Your task to perform on an android device: Open Google Chrome Image 0: 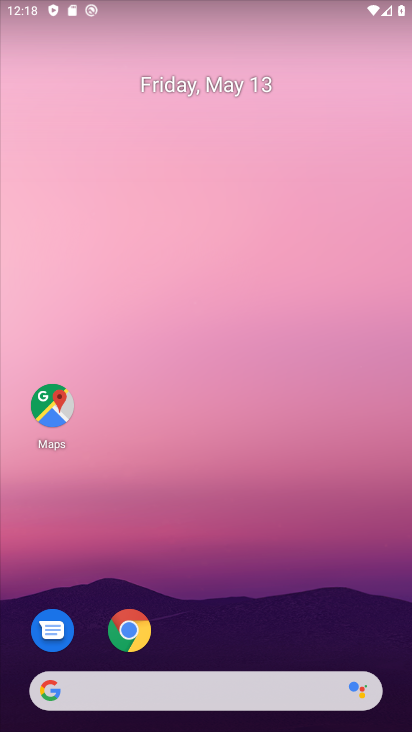
Step 0: click (138, 624)
Your task to perform on an android device: Open Google Chrome Image 1: 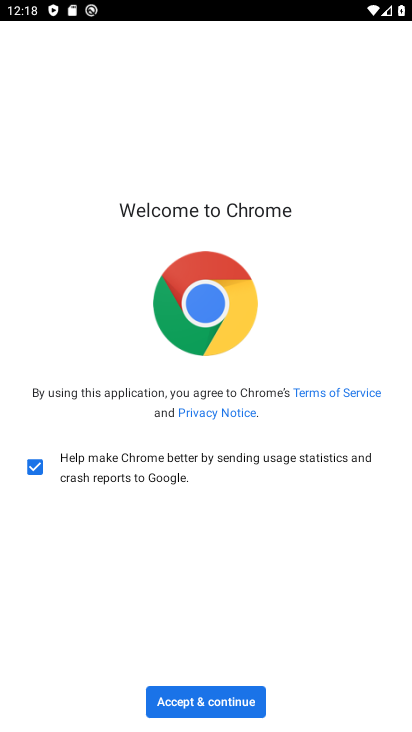
Step 1: click (194, 710)
Your task to perform on an android device: Open Google Chrome Image 2: 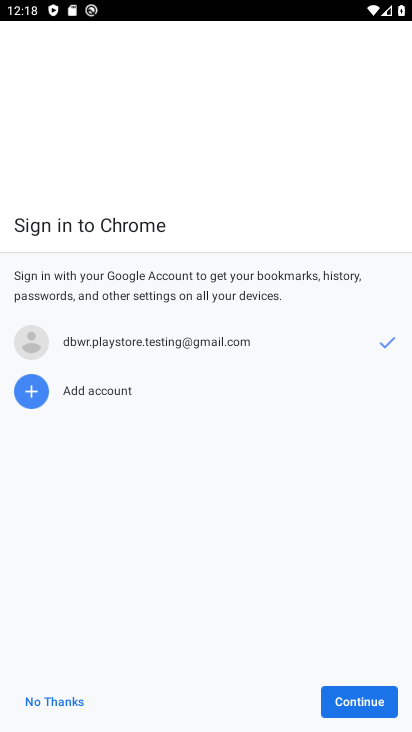
Step 2: click (364, 701)
Your task to perform on an android device: Open Google Chrome Image 3: 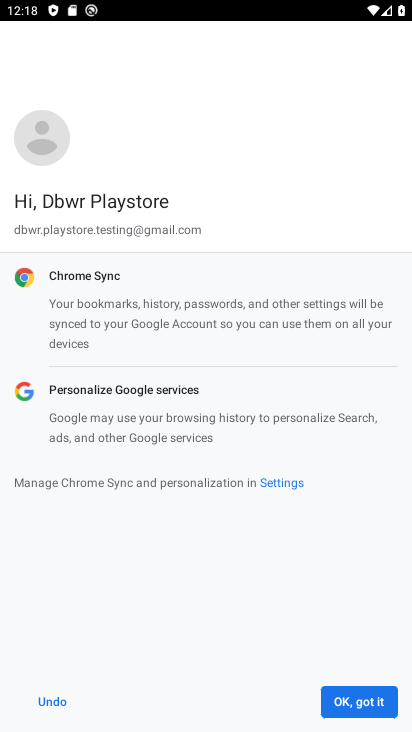
Step 3: click (369, 706)
Your task to perform on an android device: Open Google Chrome Image 4: 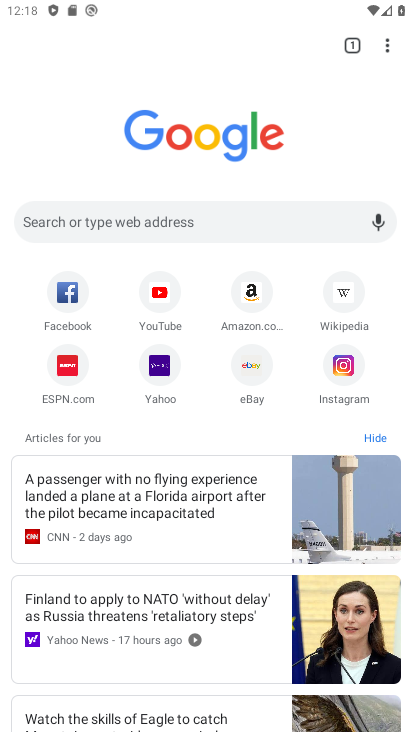
Step 4: task complete